Your task to perform on an android device: check storage Image 0: 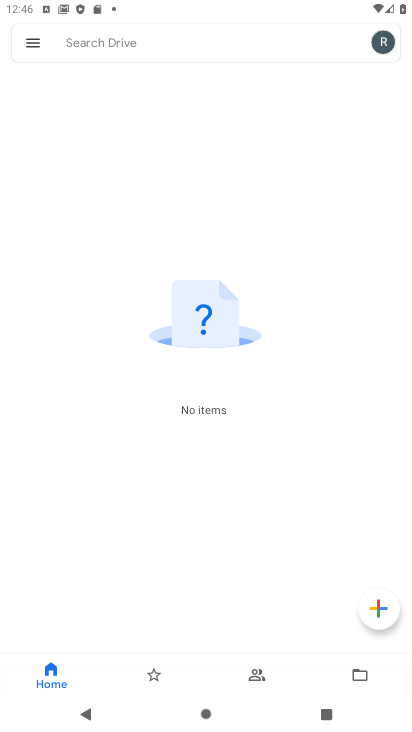
Step 0: press home button
Your task to perform on an android device: check storage Image 1: 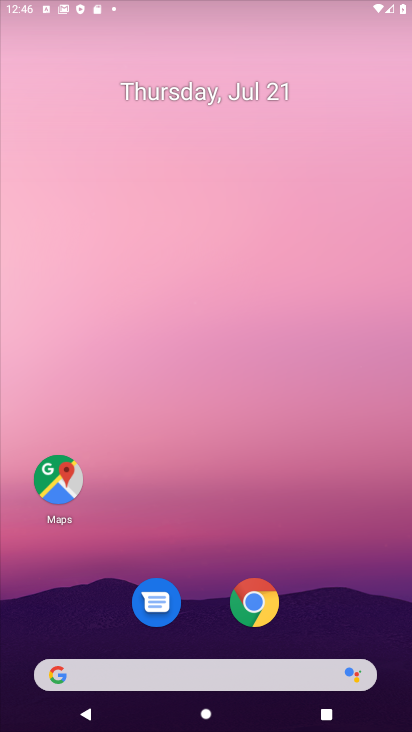
Step 1: drag from (361, 617) to (257, 1)
Your task to perform on an android device: check storage Image 2: 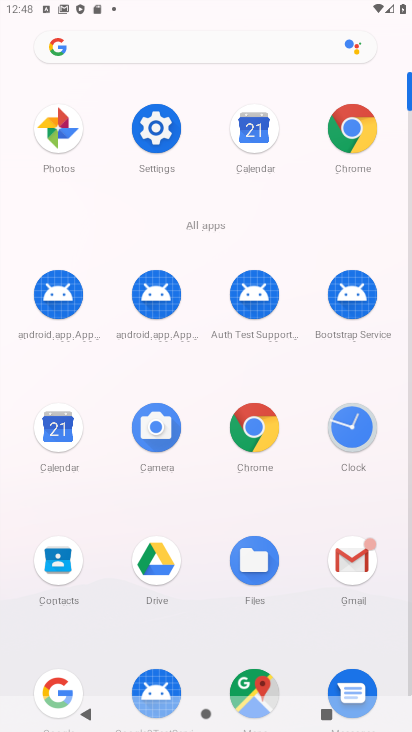
Step 2: click (150, 116)
Your task to perform on an android device: check storage Image 3: 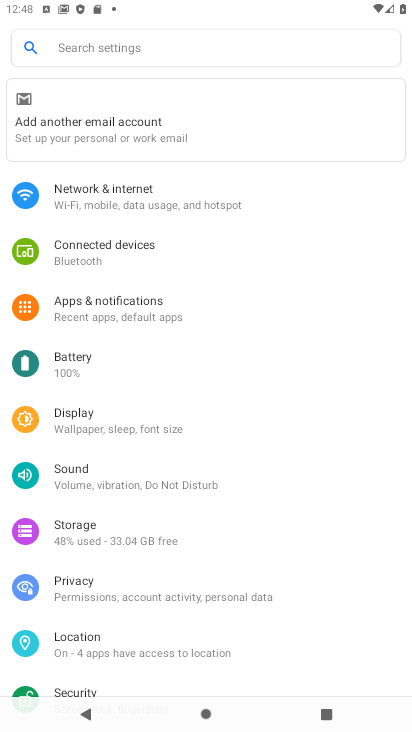
Step 3: click (82, 534)
Your task to perform on an android device: check storage Image 4: 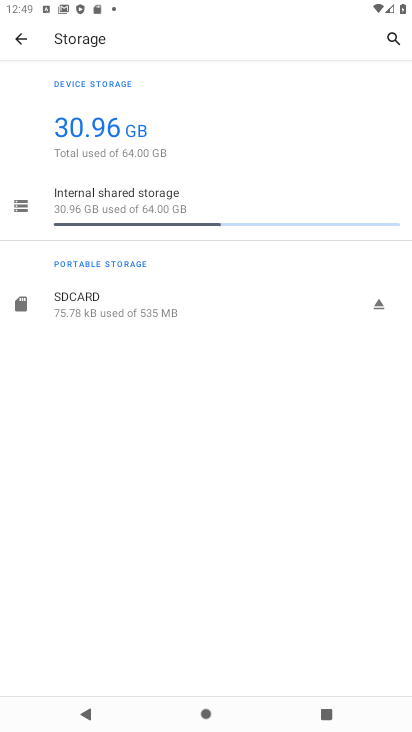
Step 4: click (89, 211)
Your task to perform on an android device: check storage Image 5: 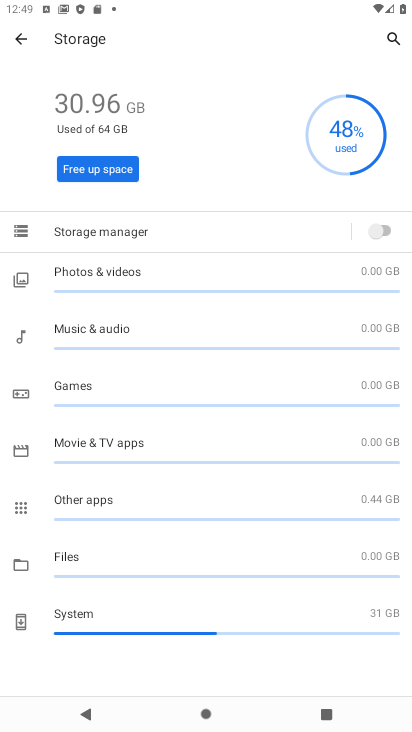
Step 5: task complete